Your task to perform on an android device: Go to Reddit.com Image 0: 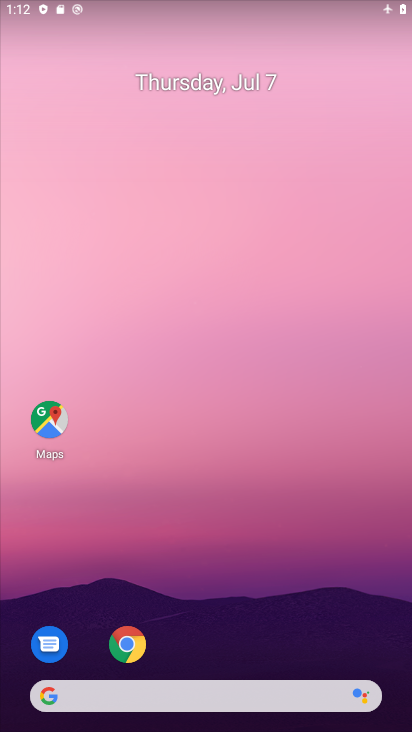
Step 0: click (126, 644)
Your task to perform on an android device: Go to Reddit.com Image 1: 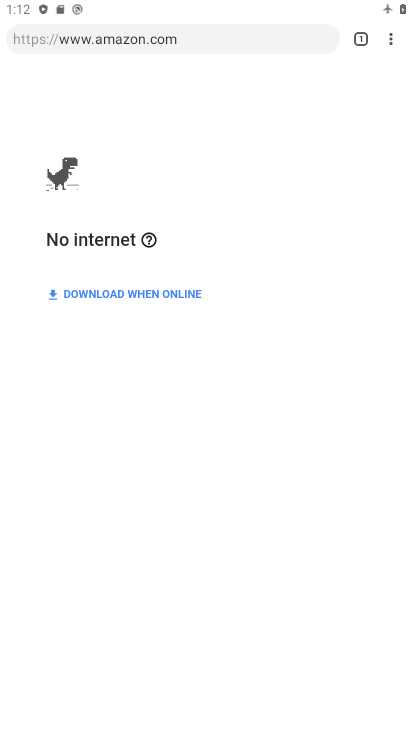
Step 1: click (389, 42)
Your task to perform on an android device: Go to Reddit.com Image 2: 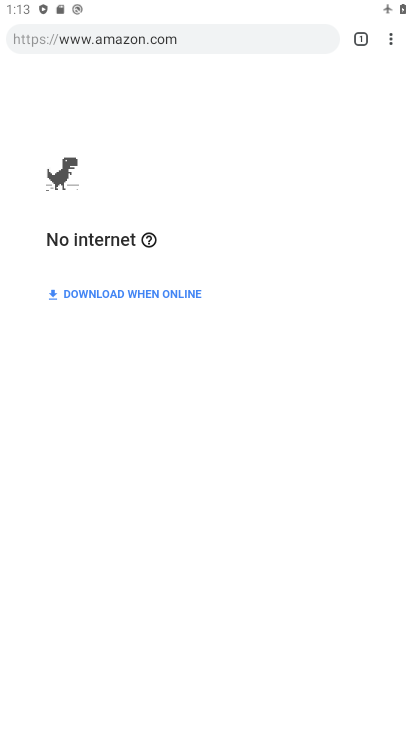
Step 2: press back button
Your task to perform on an android device: Go to Reddit.com Image 3: 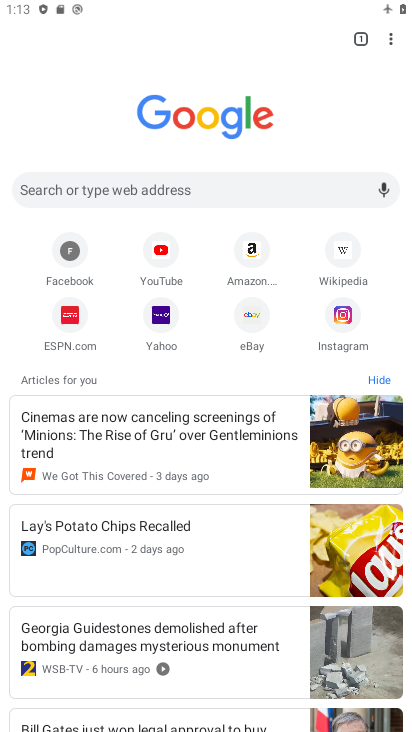
Step 3: press back button
Your task to perform on an android device: Go to Reddit.com Image 4: 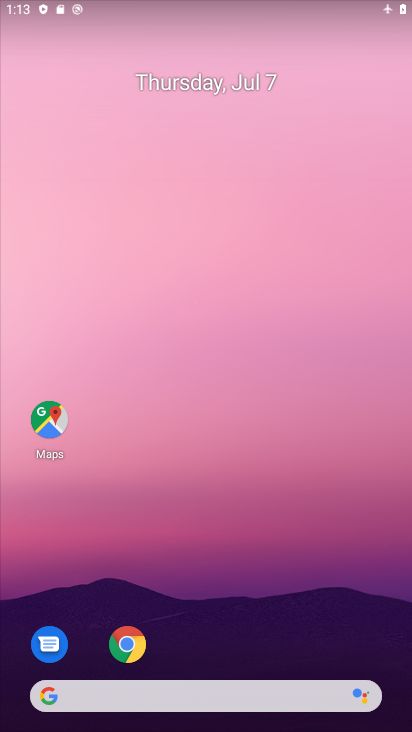
Step 4: drag from (210, 648) to (145, 182)
Your task to perform on an android device: Go to Reddit.com Image 5: 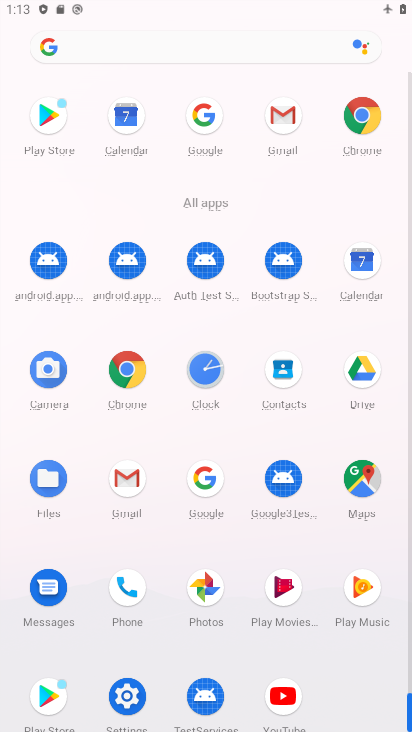
Step 5: click (128, 696)
Your task to perform on an android device: Go to Reddit.com Image 6: 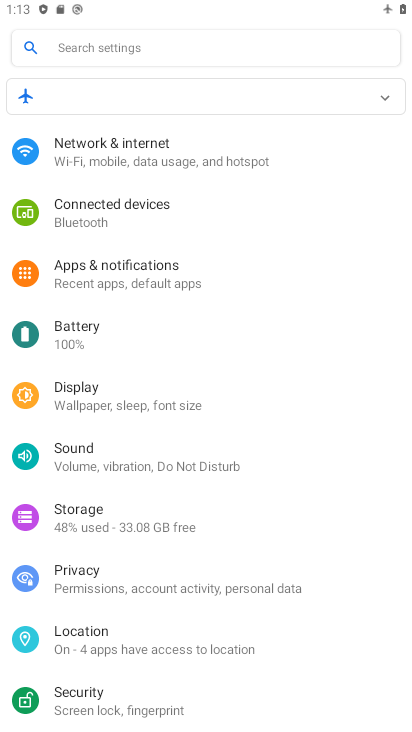
Step 6: click (137, 169)
Your task to perform on an android device: Go to Reddit.com Image 7: 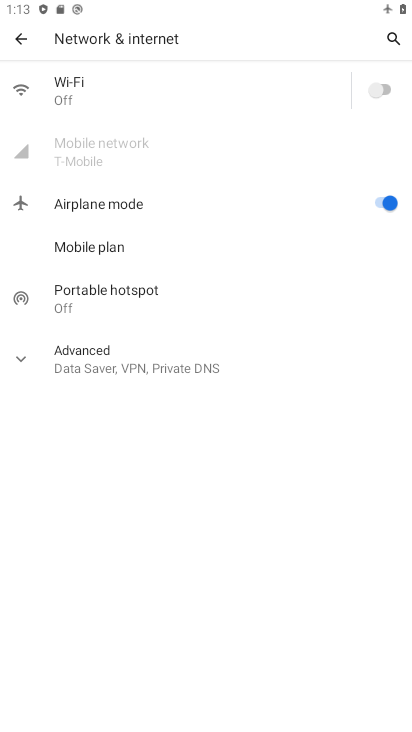
Step 7: click (375, 95)
Your task to perform on an android device: Go to Reddit.com Image 8: 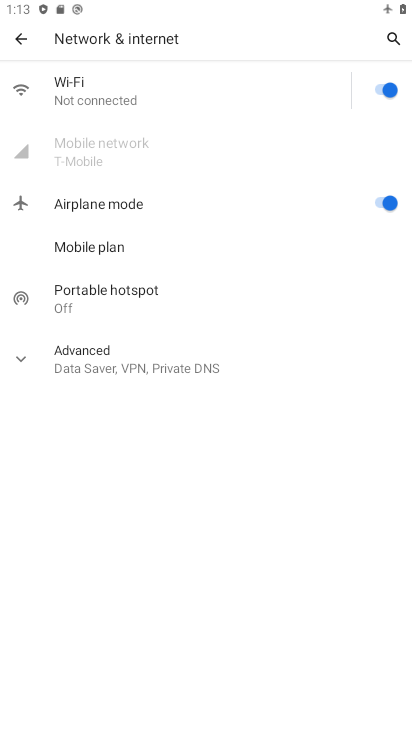
Step 8: click (394, 203)
Your task to perform on an android device: Go to Reddit.com Image 9: 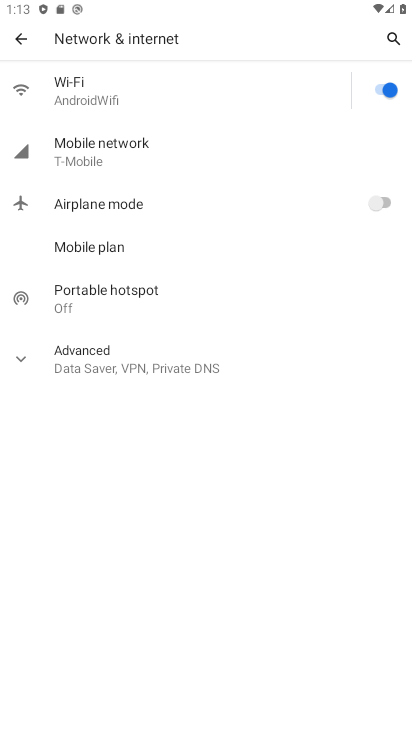
Step 9: press back button
Your task to perform on an android device: Go to Reddit.com Image 10: 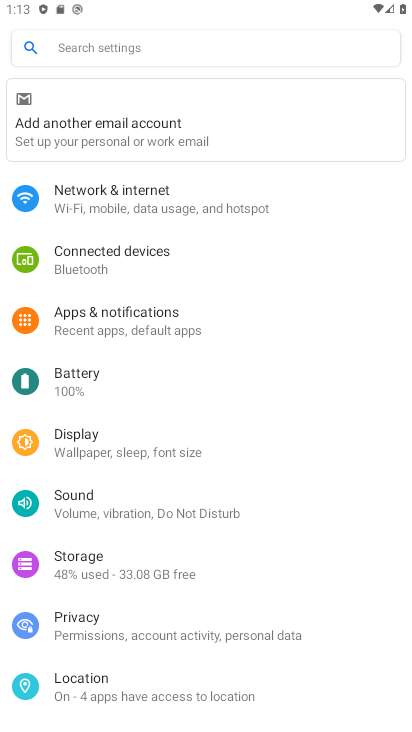
Step 10: press back button
Your task to perform on an android device: Go to Reddit.com Image 11: 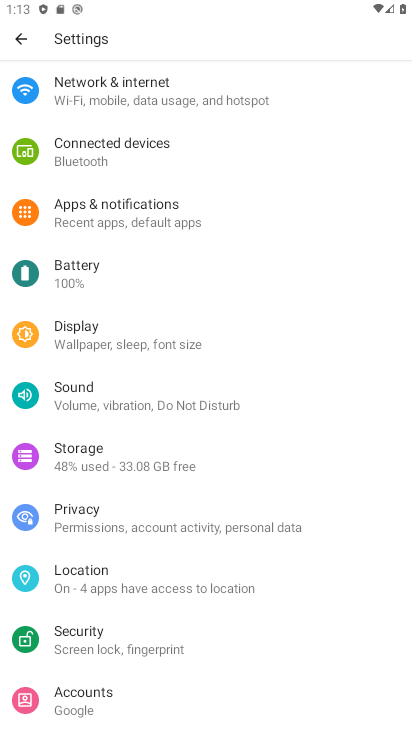
Step 11: press back button
Your task to perform on an android device: Go to Reddit.com Image 12: 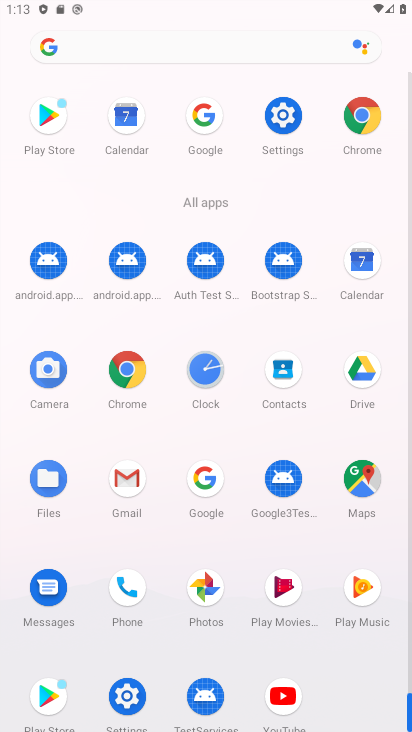
Step 12: click (363, 115)
Your task to perform on an android device: Go to Reddit.com Image 13: 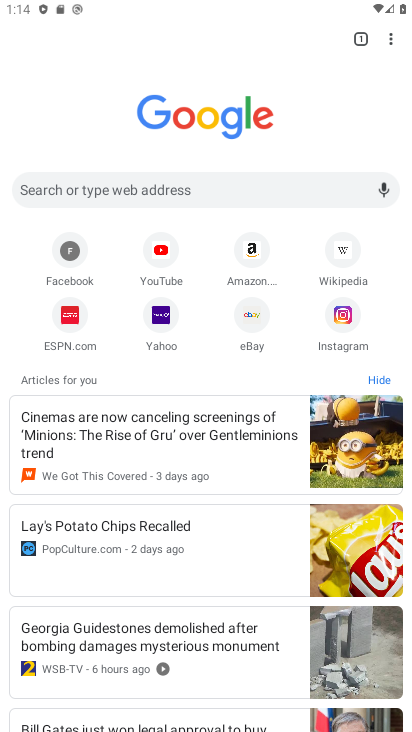
Step 13: click (227, 192)
Your task to perform on an android device: Go to Reddit.com Image 14: 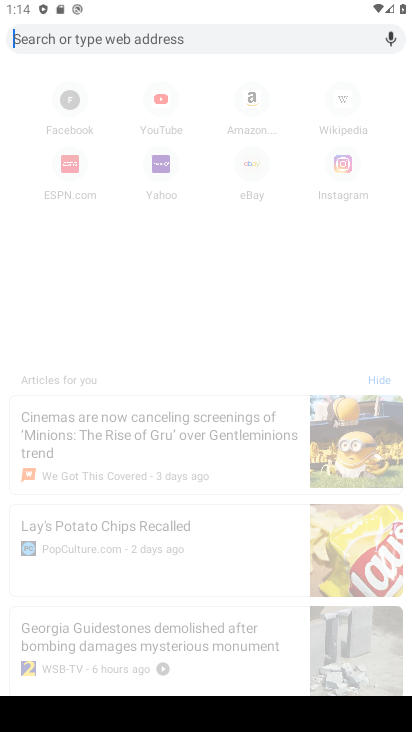
Step 14: type "Reddit.com"
Your task to perform on an android device: Go to Reddit.com Image 15: 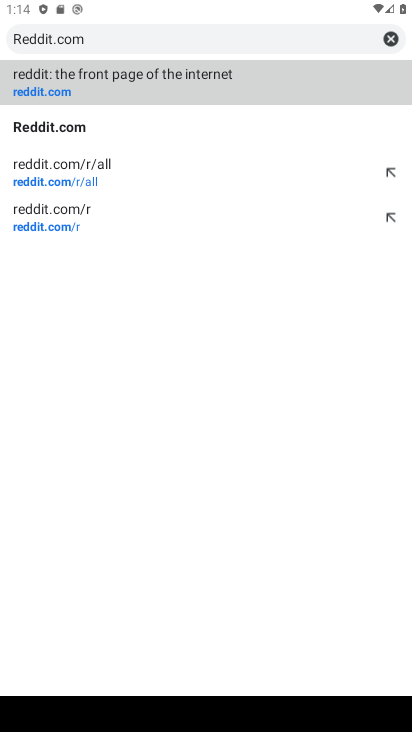
Step 15: click (69, 127)
Your task to perform on an android device: Go to Reddit.com Image 16: 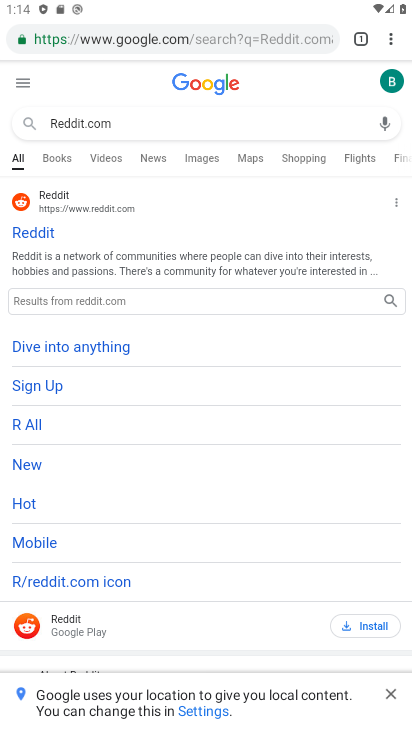
Step 16: click (41, 229)
Your task to perform on an android device: Go to Reddit.com Image 17: 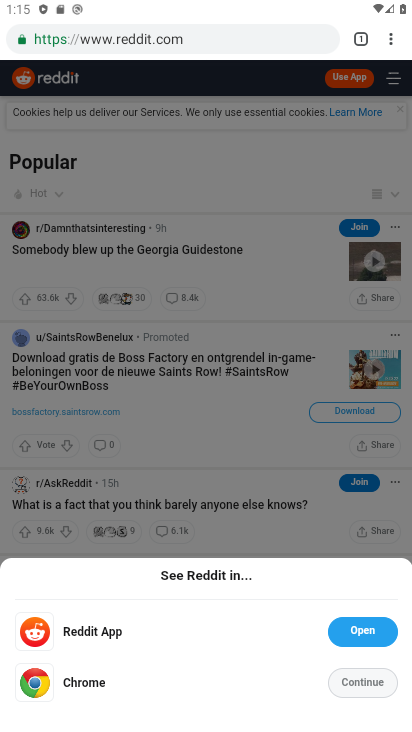
Step 17: click (350, 682)
Your task to perform on an android device: Go to Reddit.com Image 18: 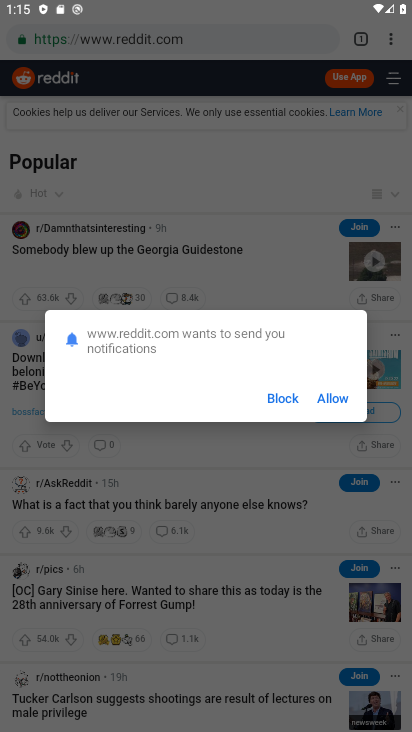
Step 18: click (319, 398)
Your task to perform on an android device: Go to Reddit.com Image 19: 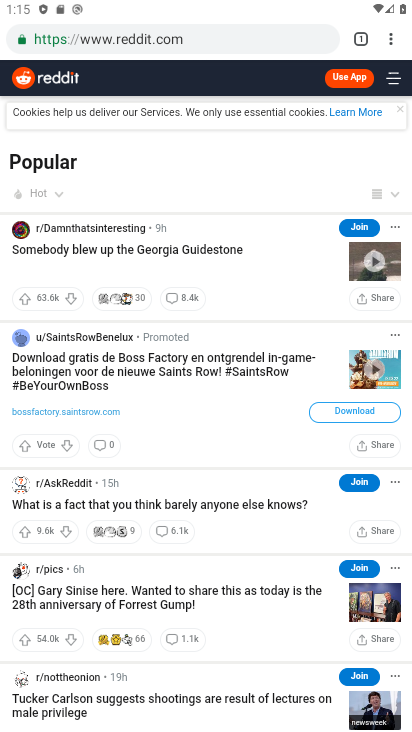
Step 19: task complete